Your task to perform on an android device: What's on Reddit this week Image 0: 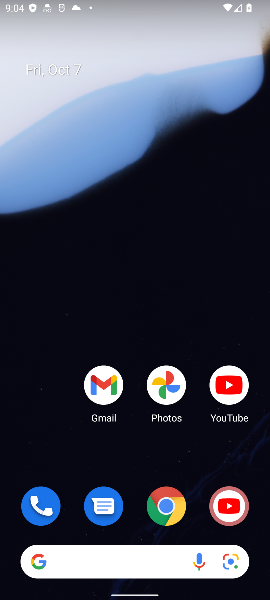
Step 0: drag from (210, 282) to (1, 314)
Your task to perform on an android device: What's on Reddit this week Image 1: 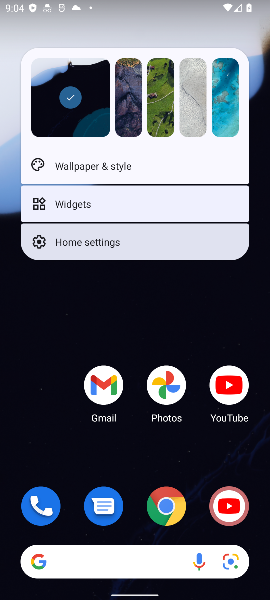
Step 1: drag from (42, 340) to (268, 400)
Your task to perform on an android device: What's on Reddit this week Image 2: 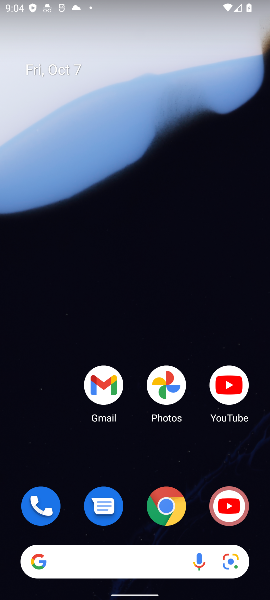
Step 2: drag from (142, 556) to (131, 197)
Your task to perform on an android device: What's on Reddit this week Image 3: 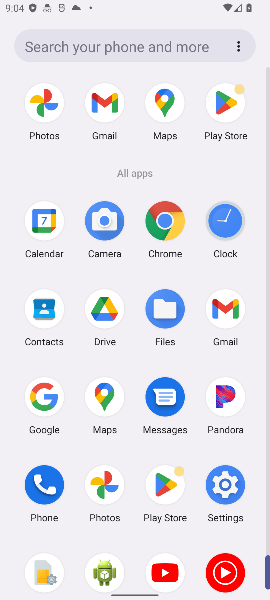
Step 3: drag from (135, 509) to (166, 187)
Your task to perform on an android device: What's on Reddit this week Image 4: 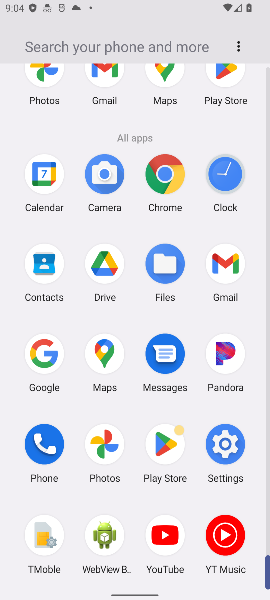
Step 4: drag from (158, 168) to (163, 532)
Your task to perform on an android device: What's on Reddit this week Image 5: 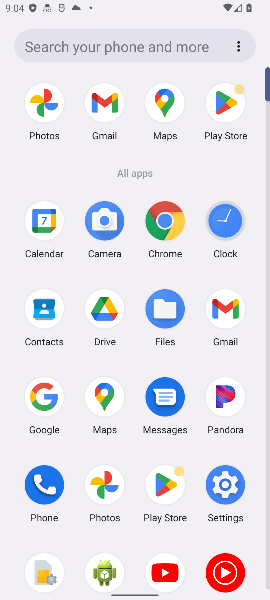
Step 5: click (79, 46)
Your task to perform on an android device: What's on Reddit this week Image 6: 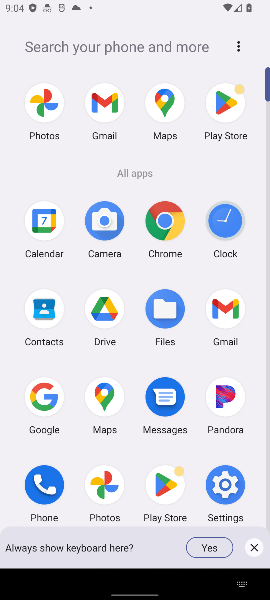
Step 6: click (79, 44)
Your task to perform on an android device: What's on Reddit this week Image 7: 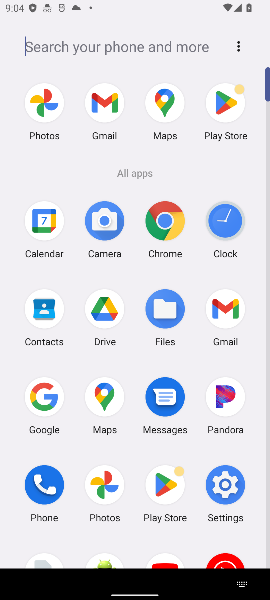
Step 7: type " Reddit"
Your task to perform on an android device: What's on Reddit this week Image 8: 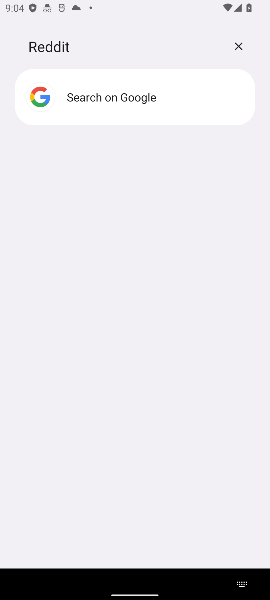
Step 8: task complete